Your task to perform on an android device: What's the speed of light? Image 0: 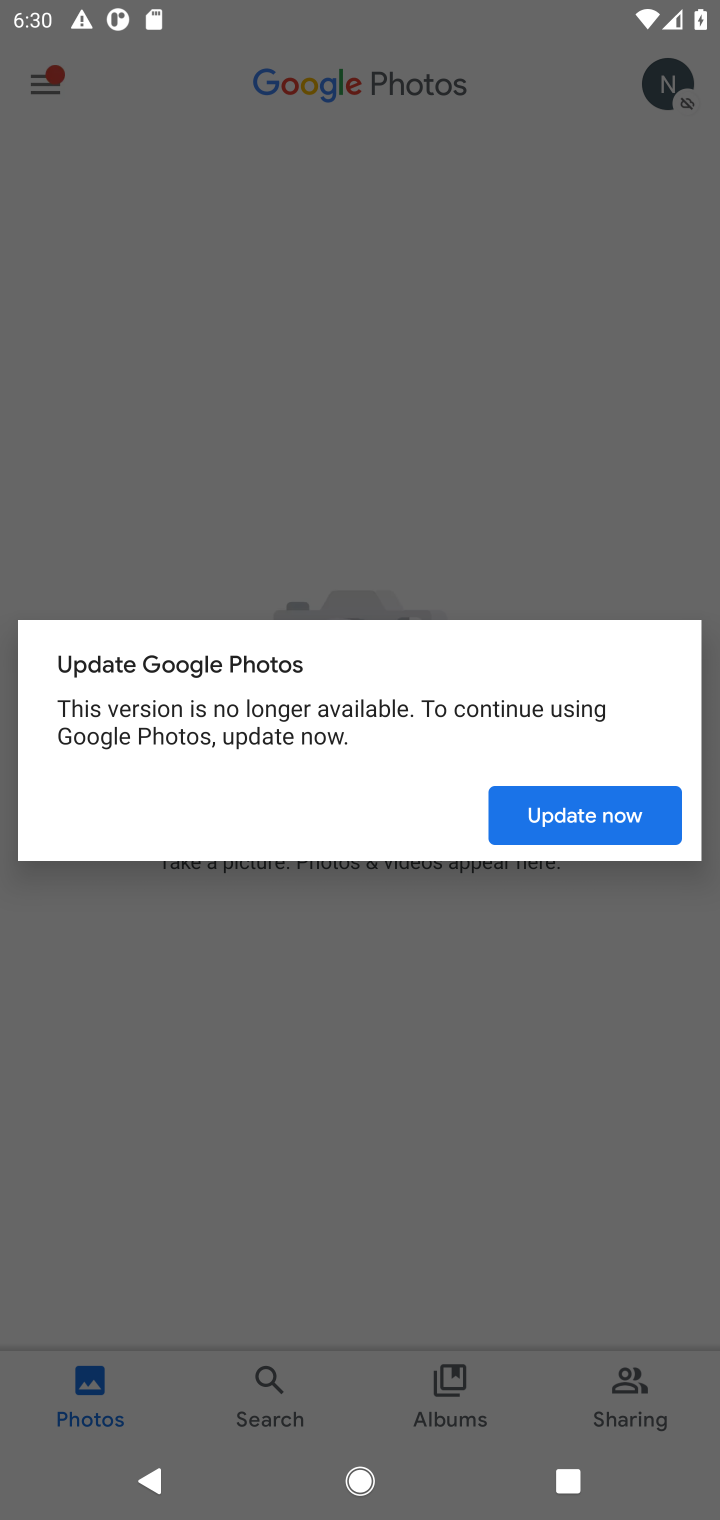
Step 0: press home button
Your task to perform on an android device: What's the speed of light? Image 1: 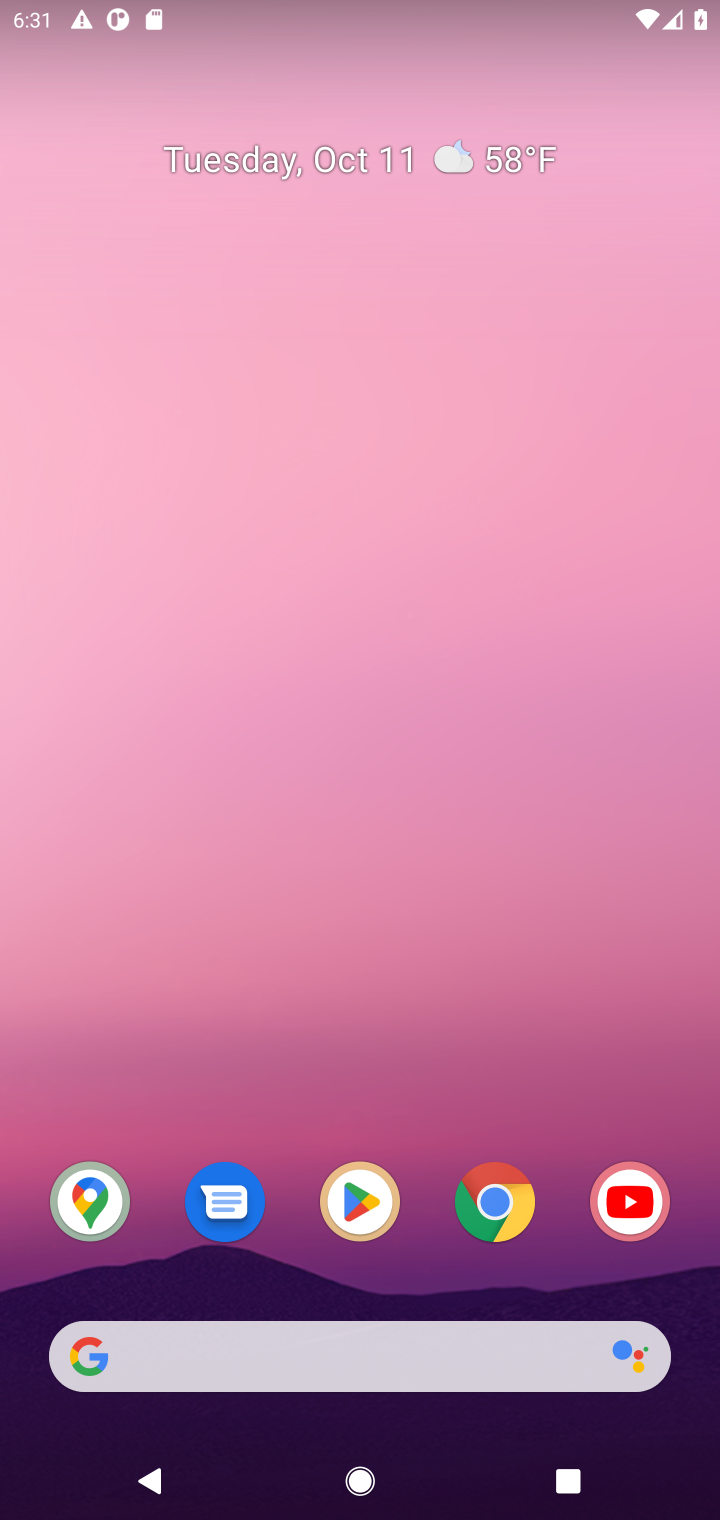
Step 1: click (510, 1217)
Your task to perform on an android device: What's the speed of light? Image 2: 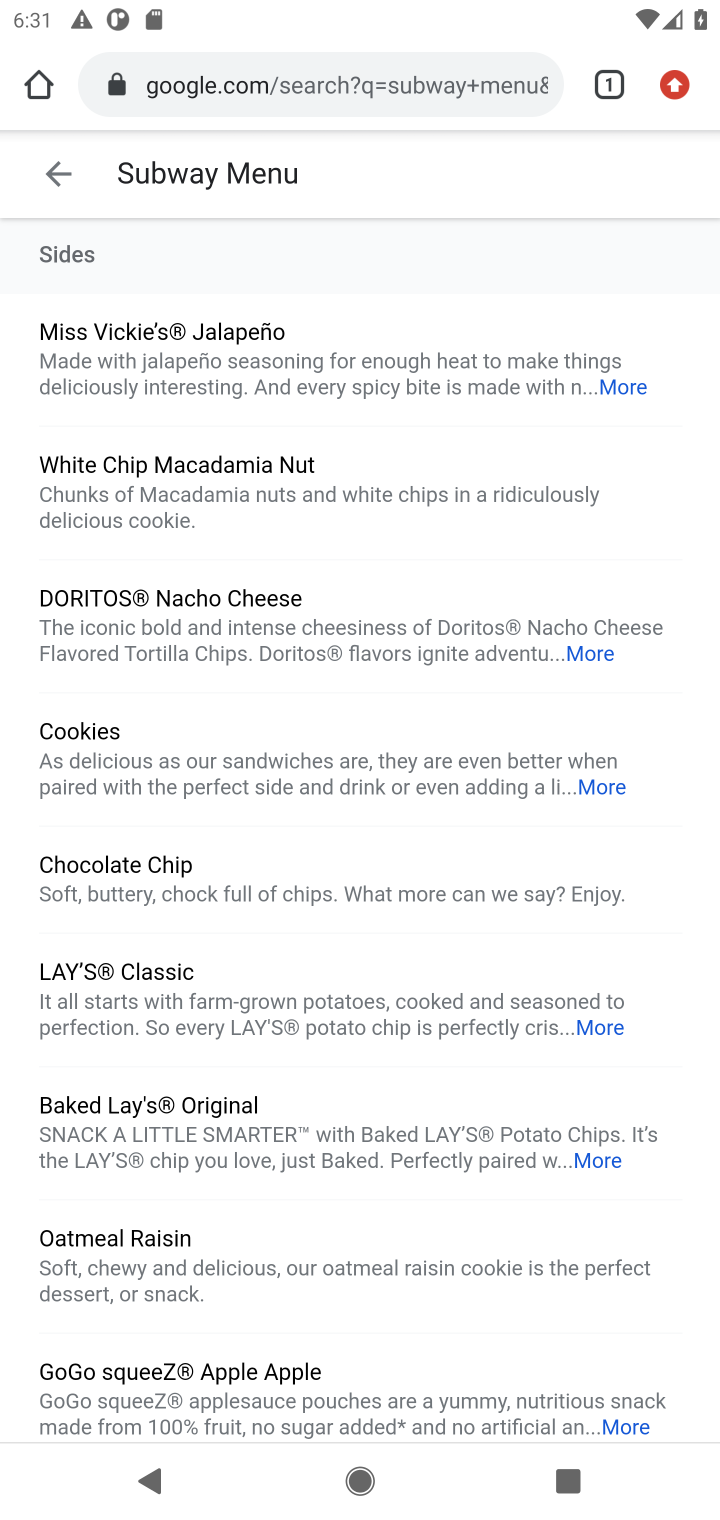
Step 2: click (336, 67)
Your task to perform on an android device: What's the speed of light? Image 3: 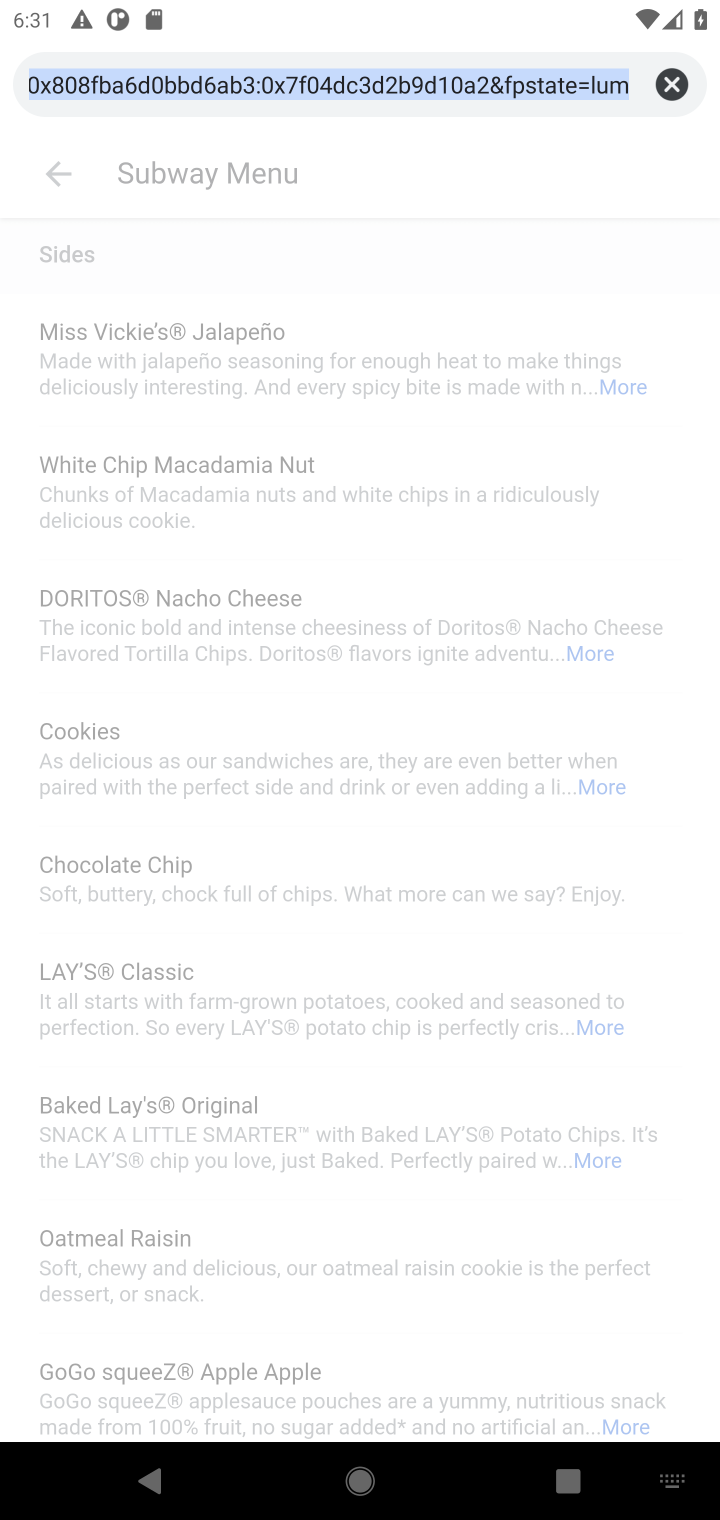
Step 3: type "What's the speed of light?"
Your task to perform on an android device: What's the speed of light? Image 4: 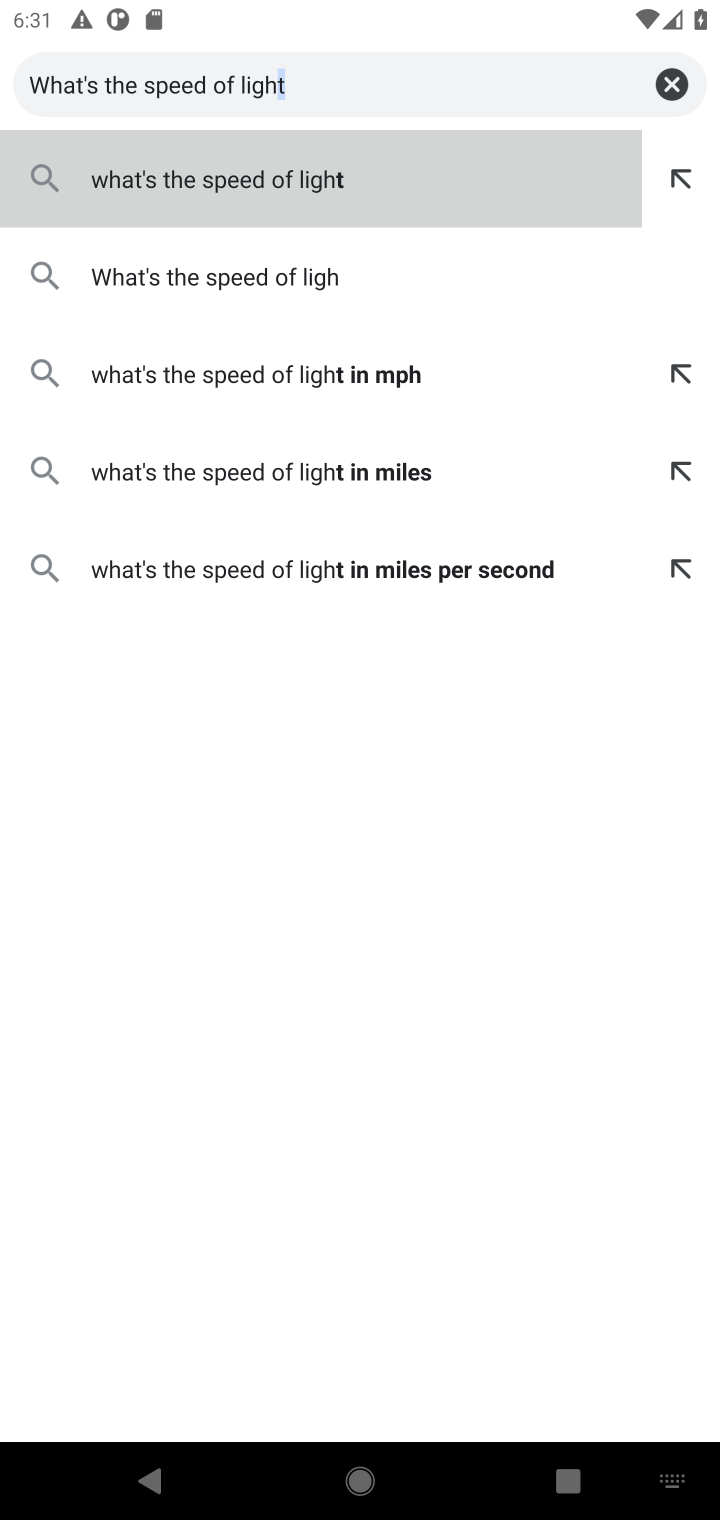
Step 4: click (491, 169)
Your task to perform on an android device: What's the speed of light? Image 5: 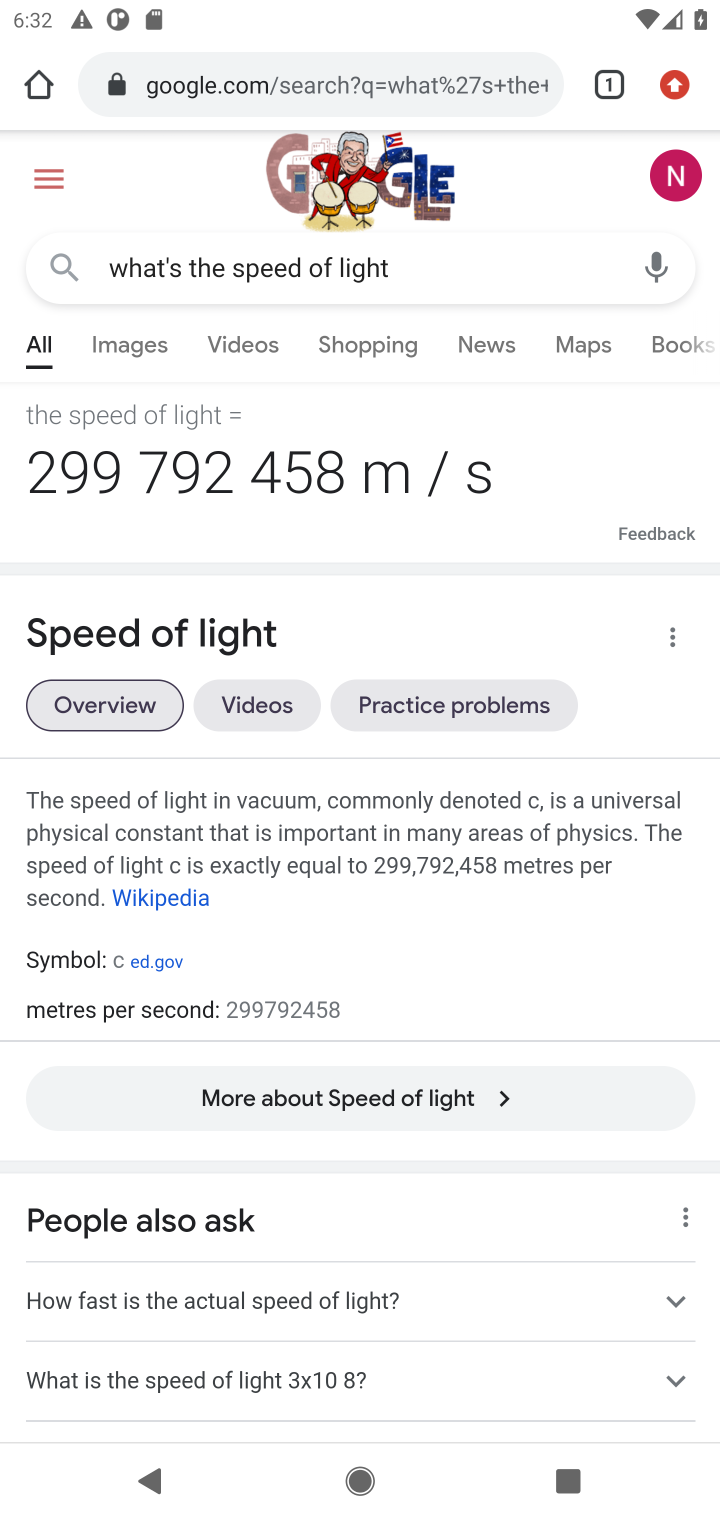
Step 5: task complete